Your task to perform on an android device: Search for pizza restaurants on Maps Image 0: 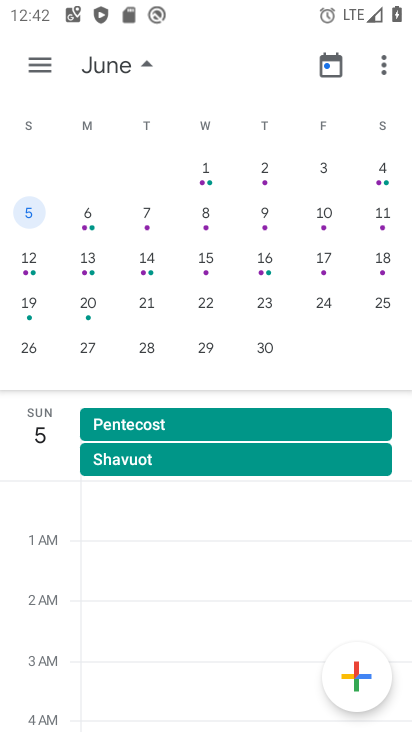
Step 0: press home button
Your task to perform on an android device: Search for pizza restaurants on Maps Image 1: 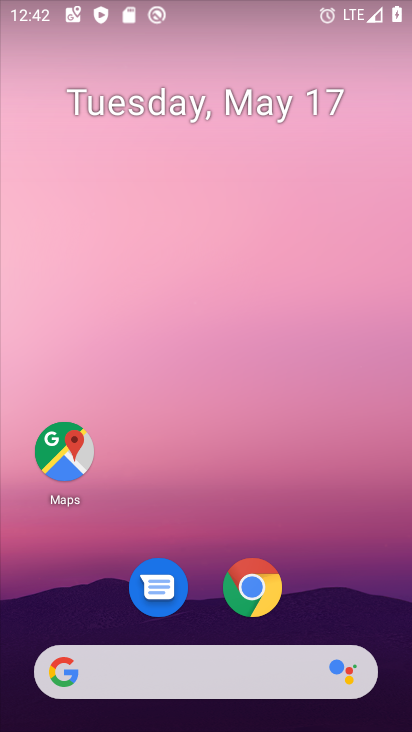
Step 1: drag from (386, 667) to (234, 79)
Your task to perform on an android device: Search for pizza restaurants on Maps Image 2: 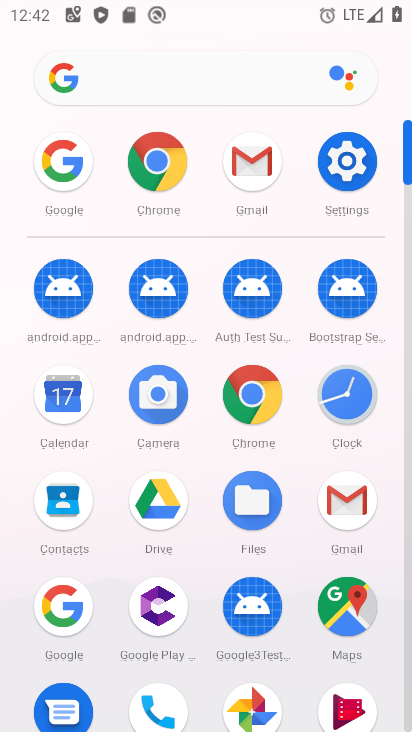
Step 2: click (343, 619)
Your task to perform on an android device: Search for pizza restaurants on Maps Image 3: 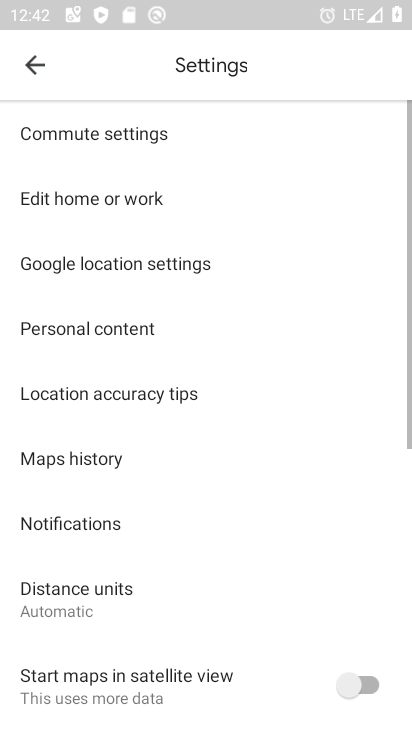
Step 3: press back button
Your task to perform on an android device: Search for pizza restaurants on Maps Image 4: 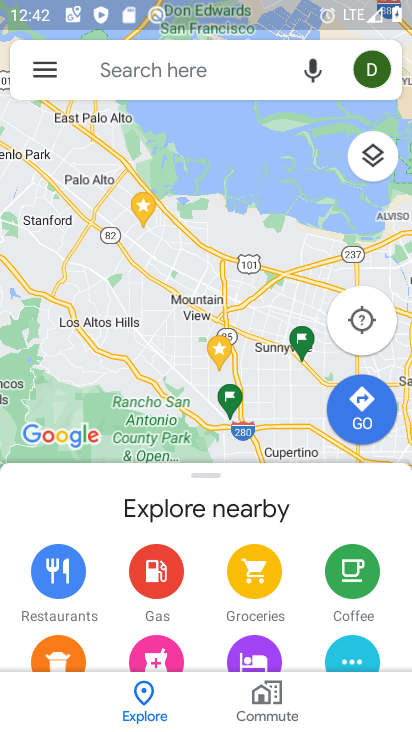
Step 4: click (135, 71)
Your task to perform on an android device: Search for pizza restaurants on Maps Image 5: 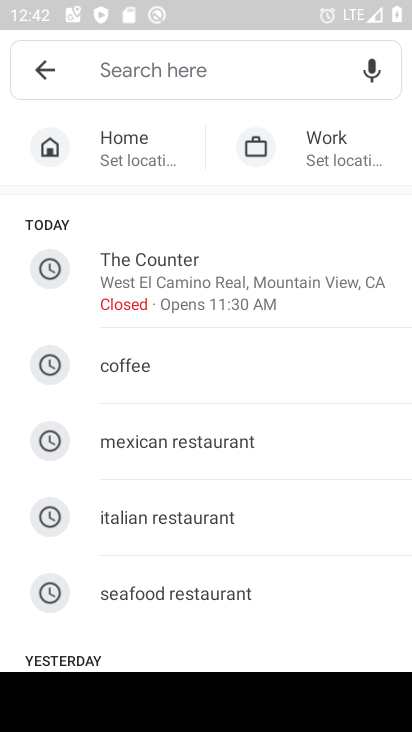
Step 5: drag from (175, 589) to (162, 194)
Your task to perform on an android device: Search for pizza restaurants on Maps Image 6: 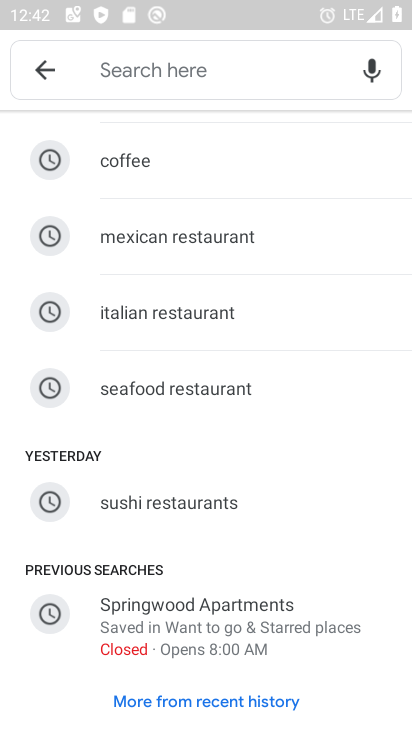
Step 6: drag from (128, 672) to (168, 235)
Your task to perform on an android device: Search for pizza restaurants on Maps Image 7: 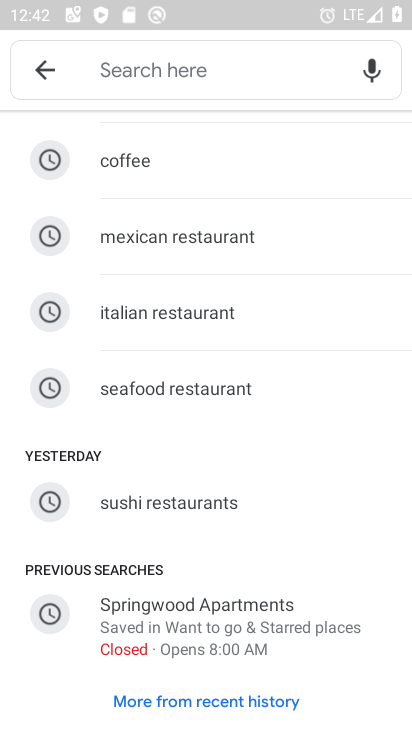
Step 7: drag from (206, 349) to (232, 624)
Your task to perform on an android device: Search for pizza restaurants on Maps Image 8: 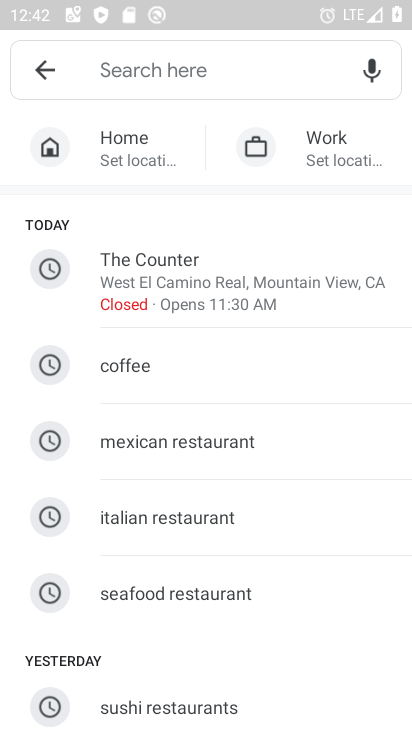
Step 8: click (169, 80)
Your task to perform on an android device: Search for pizza restaurants on Maps Image 9: 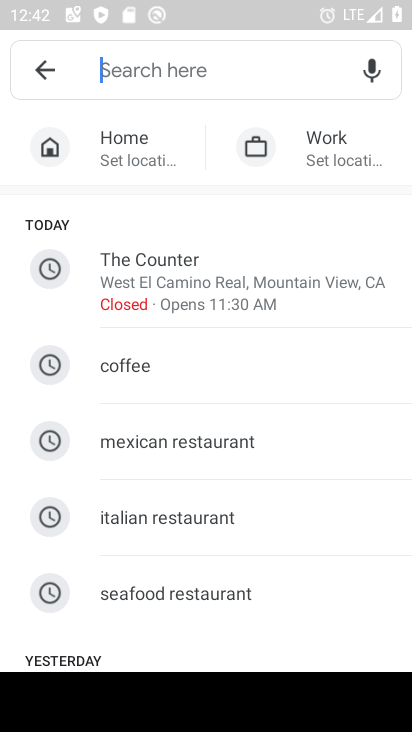
Step 9: type "pizza restaurants"
Your task to perform on an android device: Search for pizza restaurants on Maps Image 10: 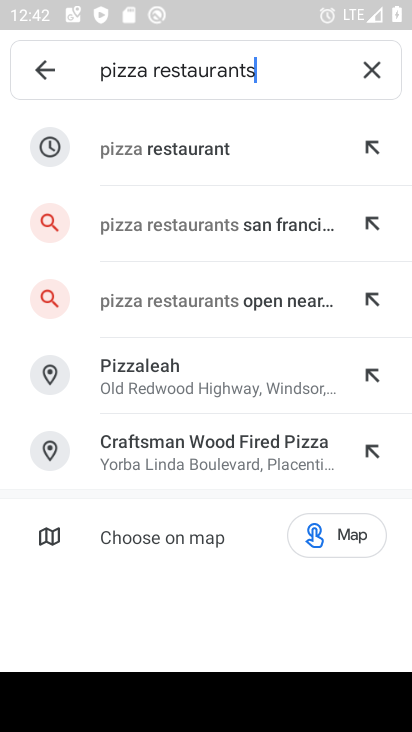
Step 10: click (115, 154)
Your task to perform on an android device: Search for pizza restaurants on Maps Image 11: 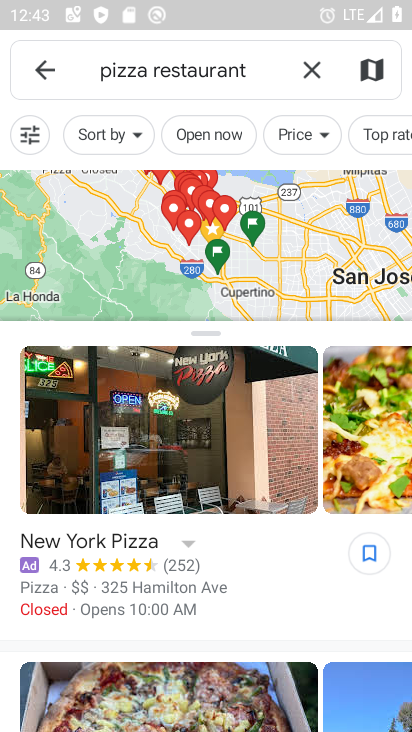
Step 11: task complete